Your task to perform on an android device: delete the emails in spam in the gmail app Image 0: 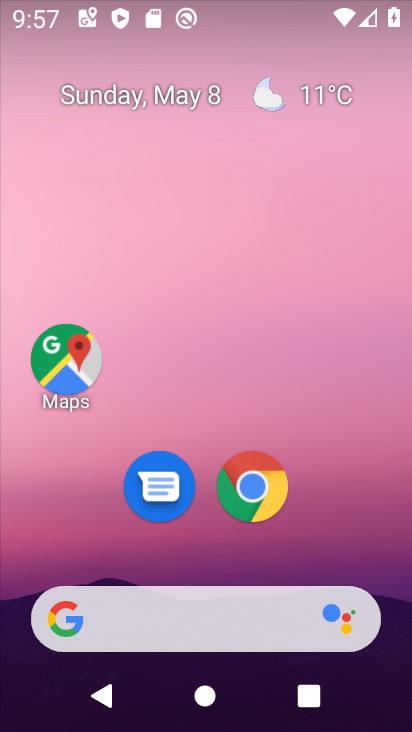
Step 0: drag from (312, 568) to (294, 2)
Your task to perform on an android device: delete the emails in spam in the gmail app Image 1: 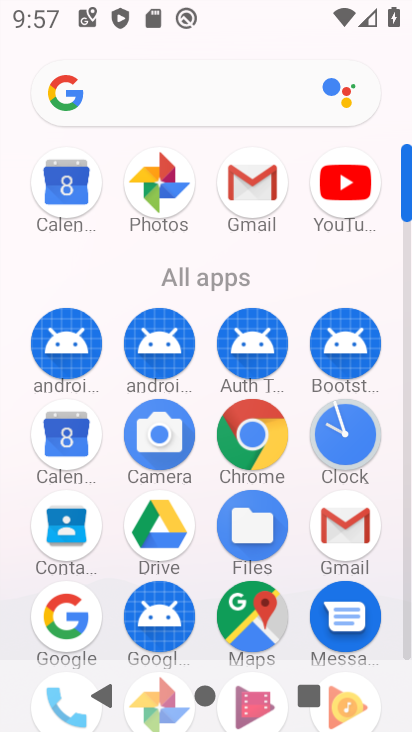
Step 1: click (336, 530)
Your task to perform on an android device: delete the emails in spam in the gmail app Image 2: 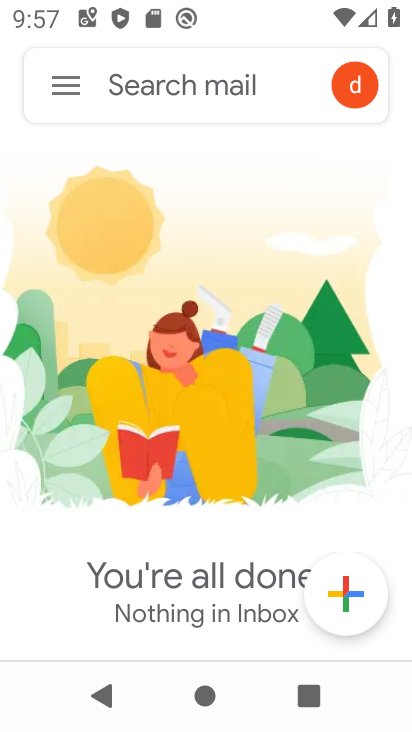
Step 2: click (59, 95)
Your task to perform on an android device: delete the emails in spam in the gmail app Image 3: 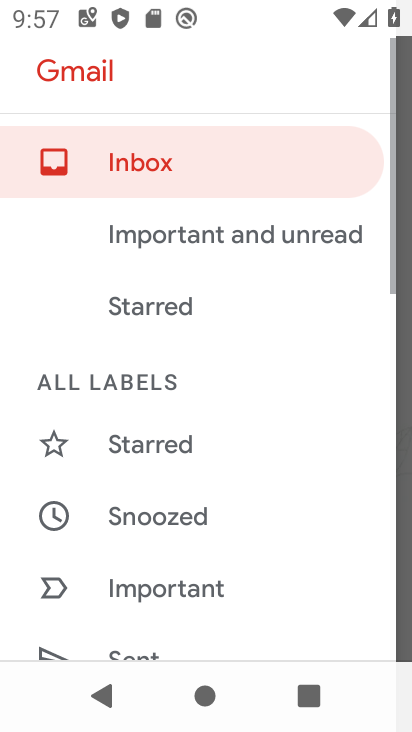
Step 3: drag from (184, 503) to (206, 129)
Your task to perform on an android device: delete the emails in spam in the gmail app Image 4: 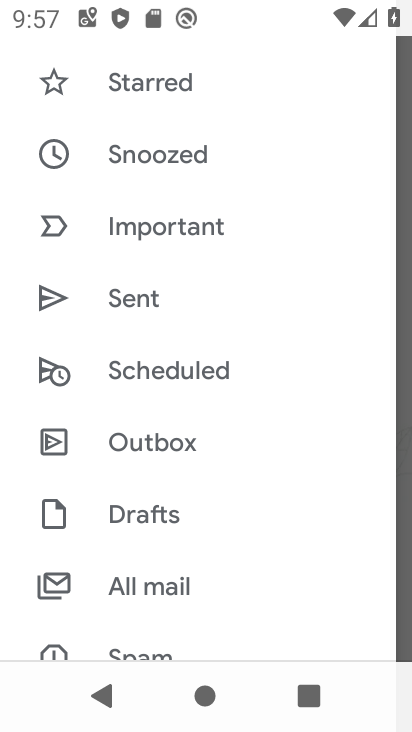
Step 4: drag from (150, 592) to (249, 214)
Your task to perform on an android device: delete the emails in spam in the gmail app Image 5: 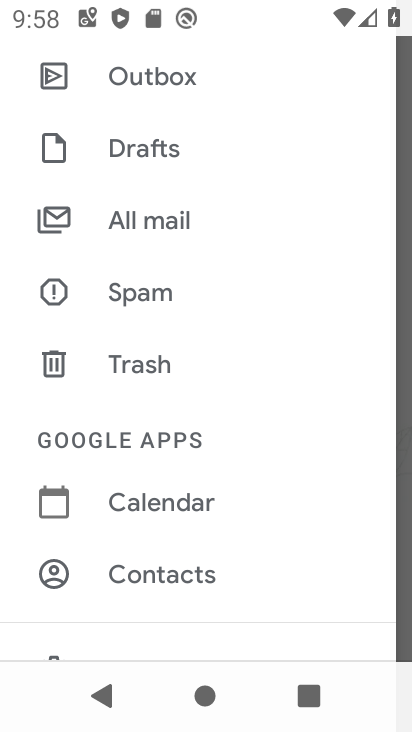
Step 5: click (159, 307)
Your task to perform on an android device: delete the emails in spam in the gmail app Image 6: 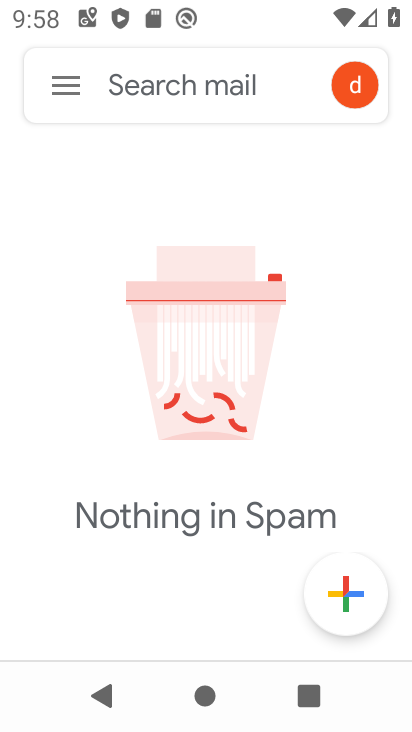
Step 6: task complete